Your task to perform on an android device: add a contact in the contacts app Image 0: 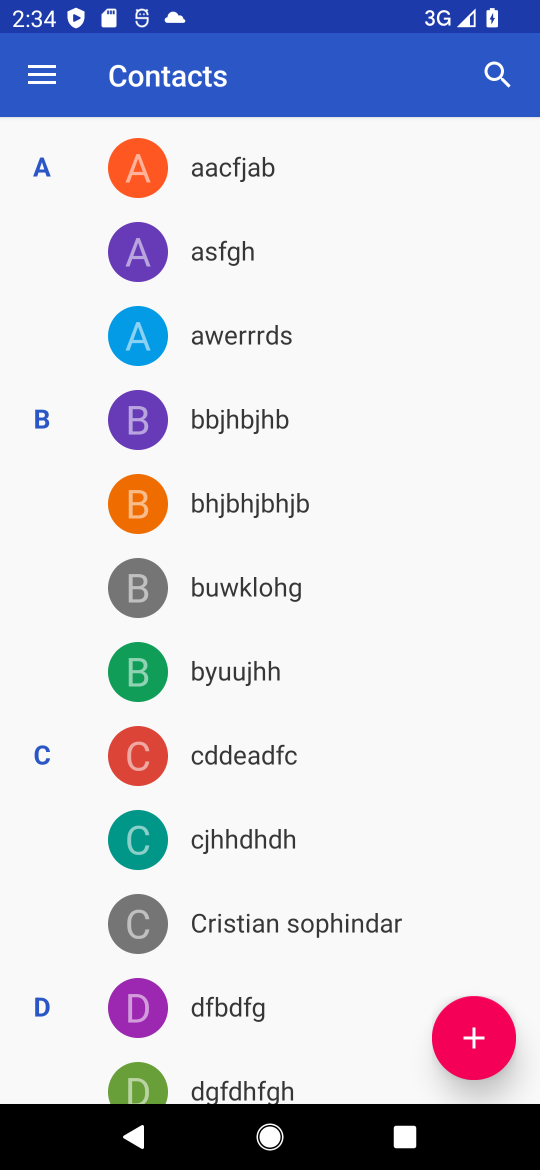
Step 0: press home button
Your task to perform on an android device: add a contact in the contacts app Image 1: 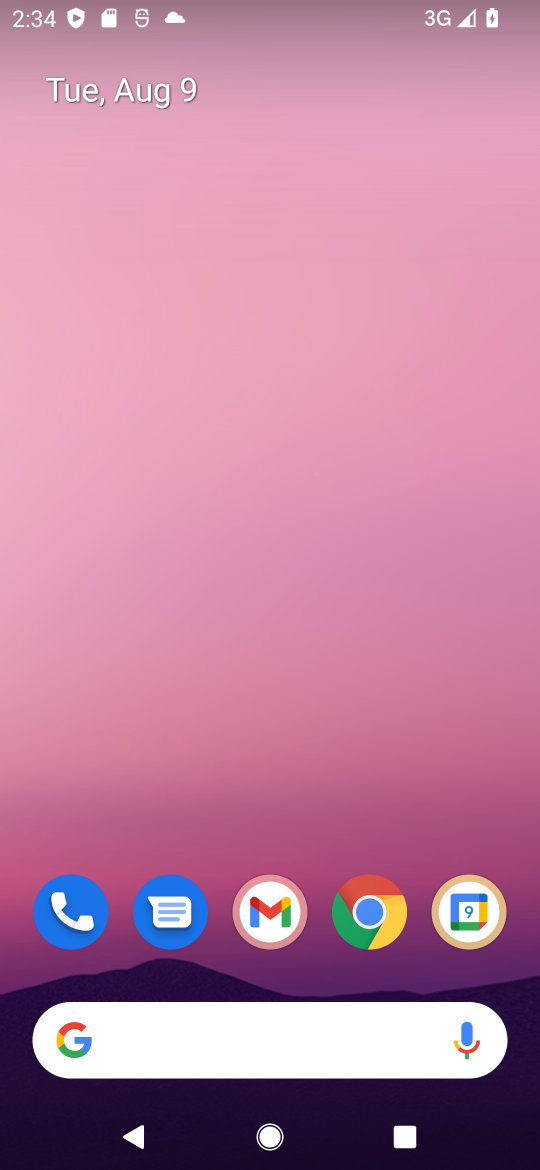
Step 1: drag from (267, 796) to (232, 214)
Your task to perform on an android device: add a contact in the contacts app Image 2: 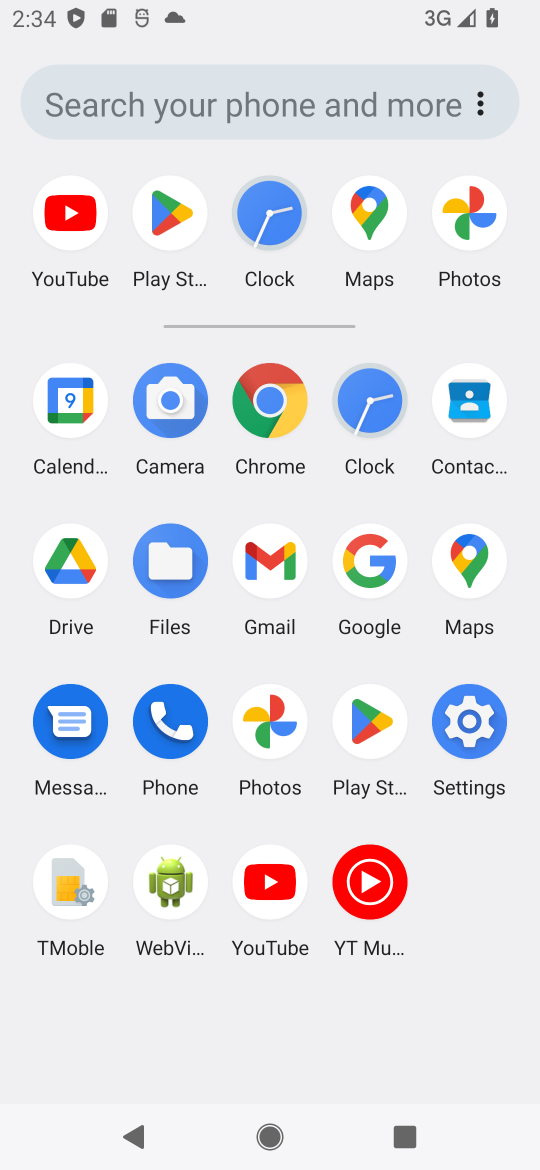
Step 2: click (463, 396)
Your task to perform on an android device: add a contact in the contacts app Image 3: 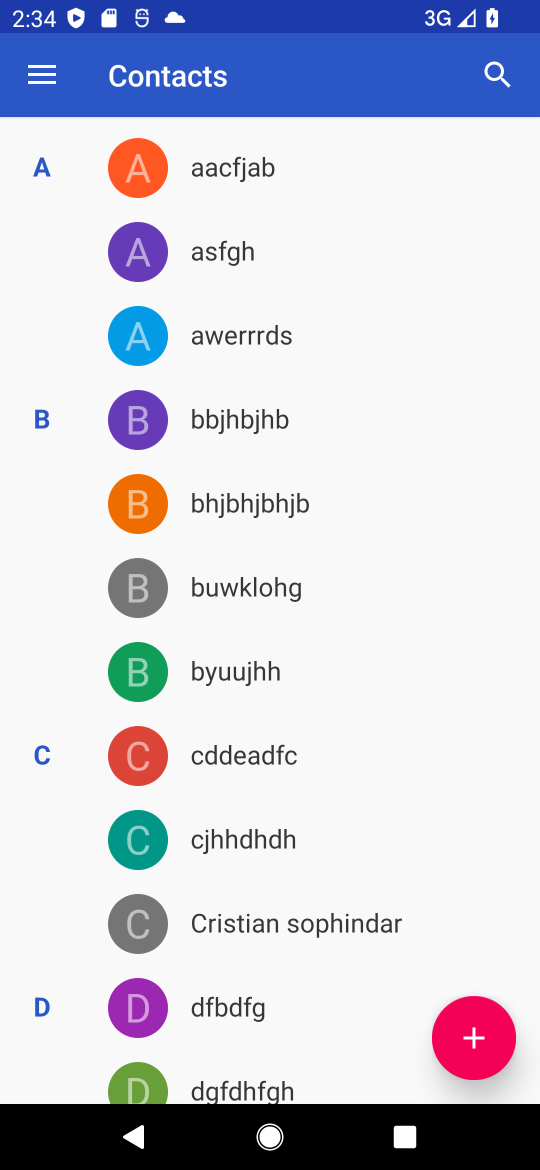
Step 3: click (474, 1038)
Your task to perform on an android device: add a contact in the contacts app Image 4: 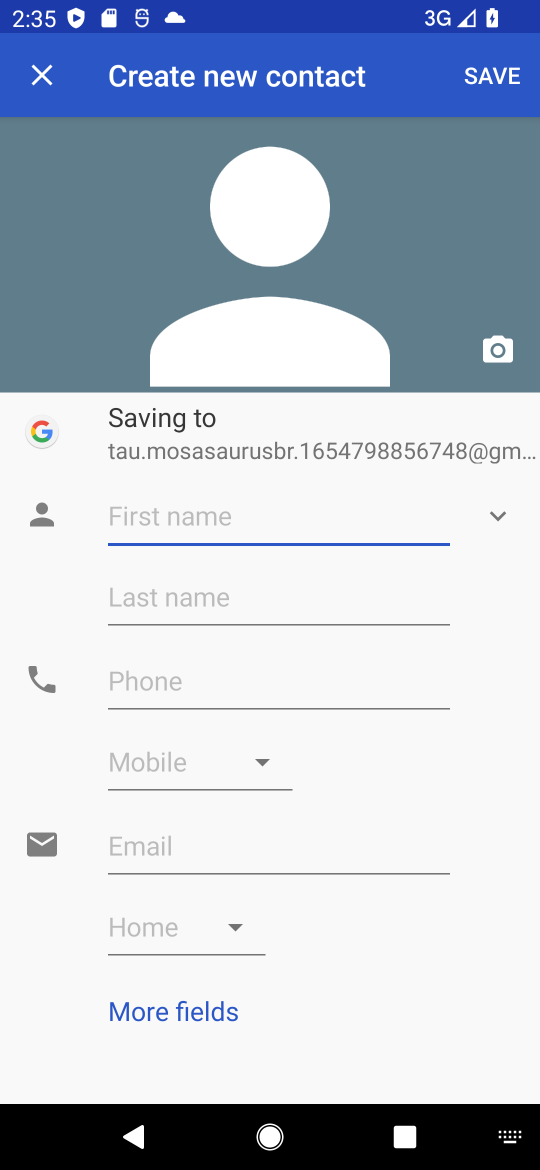
Step 4: type "aaaaaaa"
Your task to perform on an android device: add a contact in the contacts app Image 5: 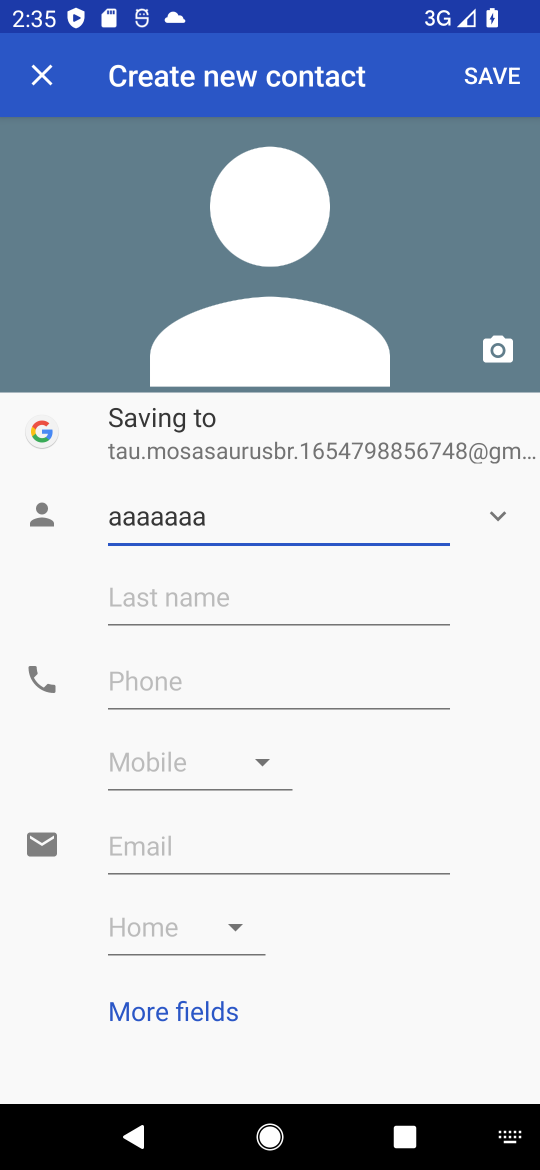
Step 5: click (238, 675)
Your task to perform on an android device: add a contact in the contacts app Image 6: 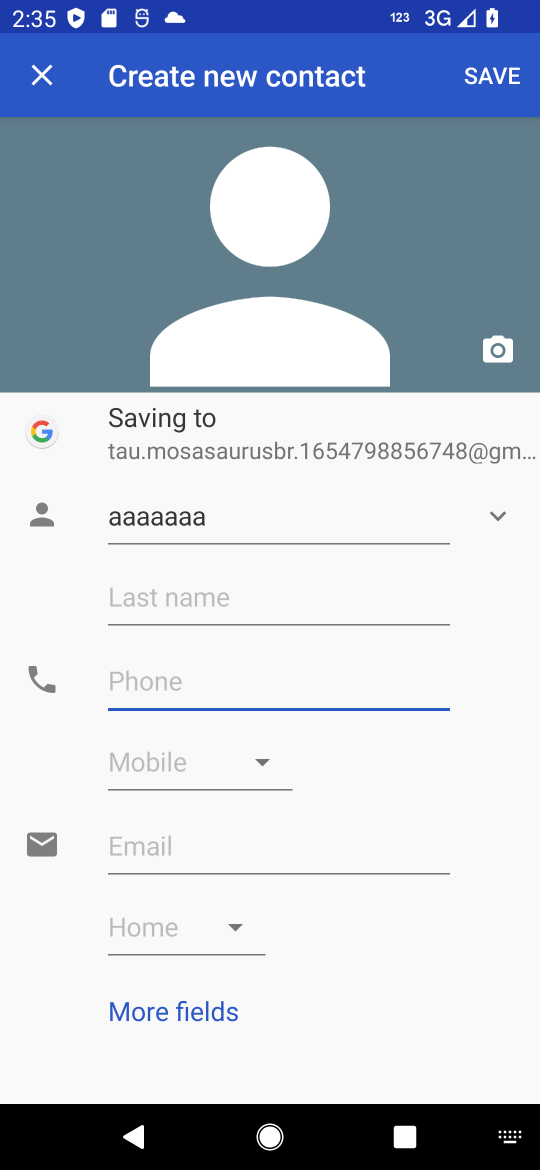
Step 6: type "22"
Your task to perform on an android device: add a contact in the contacts app Image 7: 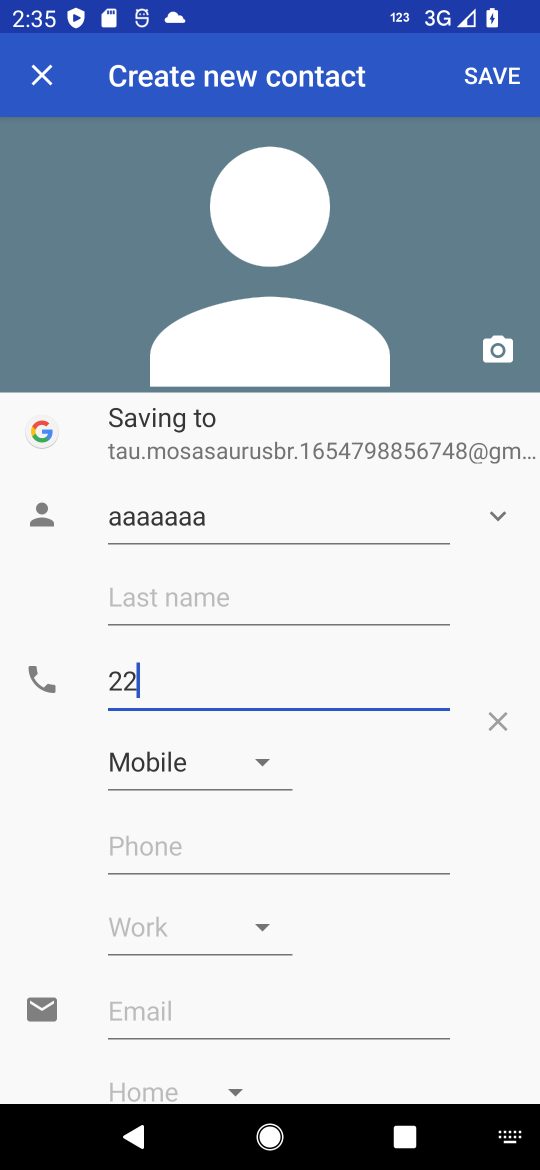
Step 7: click (491, 64)
Your task to perform on an android device: add a contact in the contacts app Image 8: 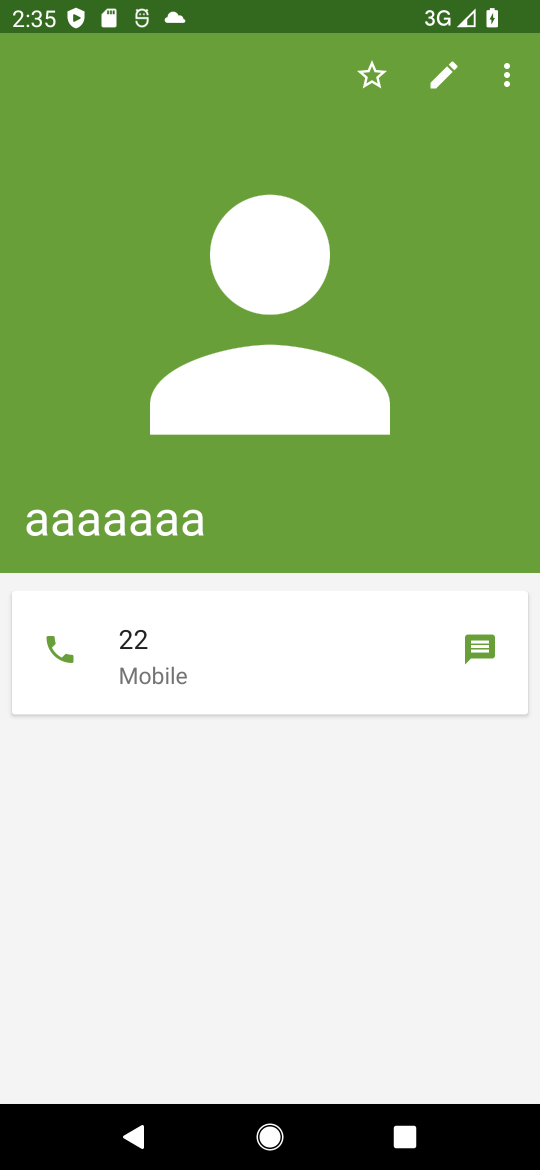
Step 8: task complete